Your task to perform on an android device: Open Google Chrome Image 0: 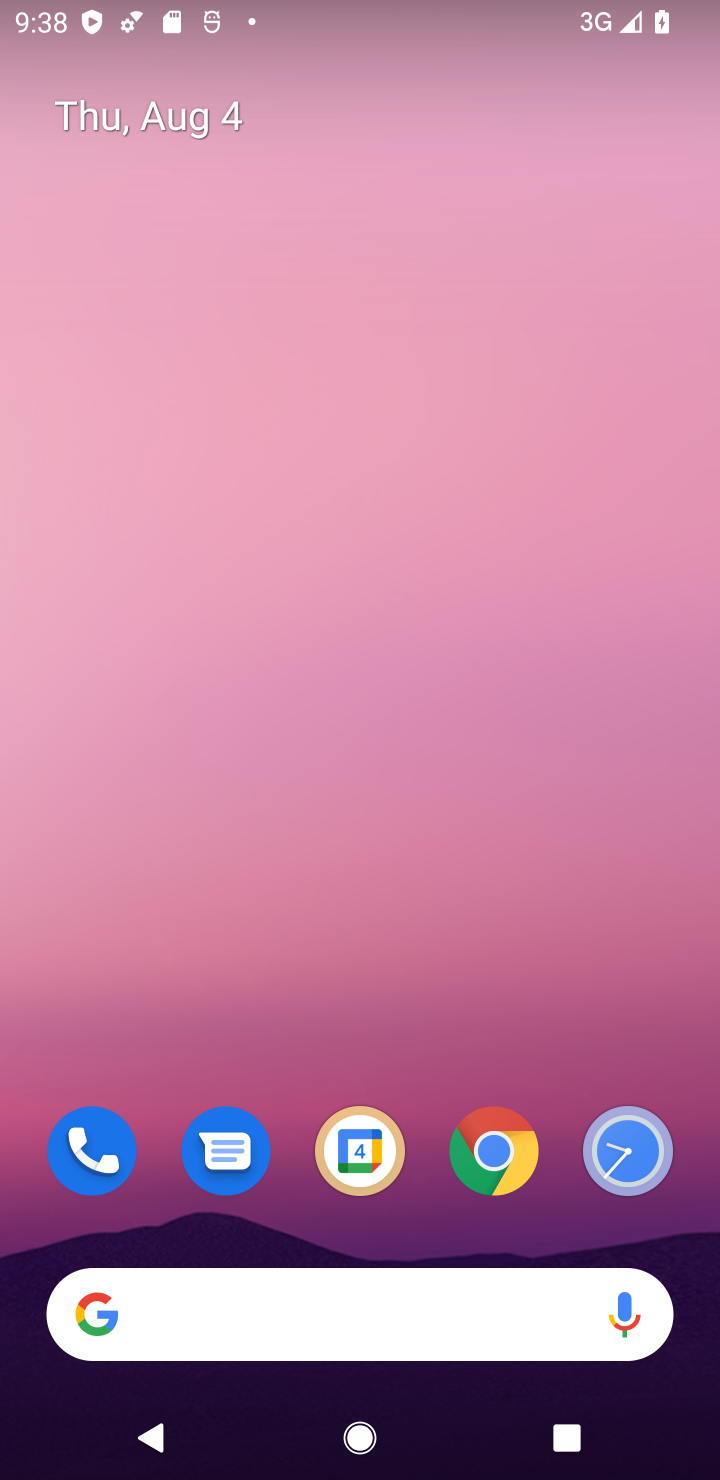
Step 0: click (478, 1176)
Your task to perform on an android device: Open Google Chrome Image 1: 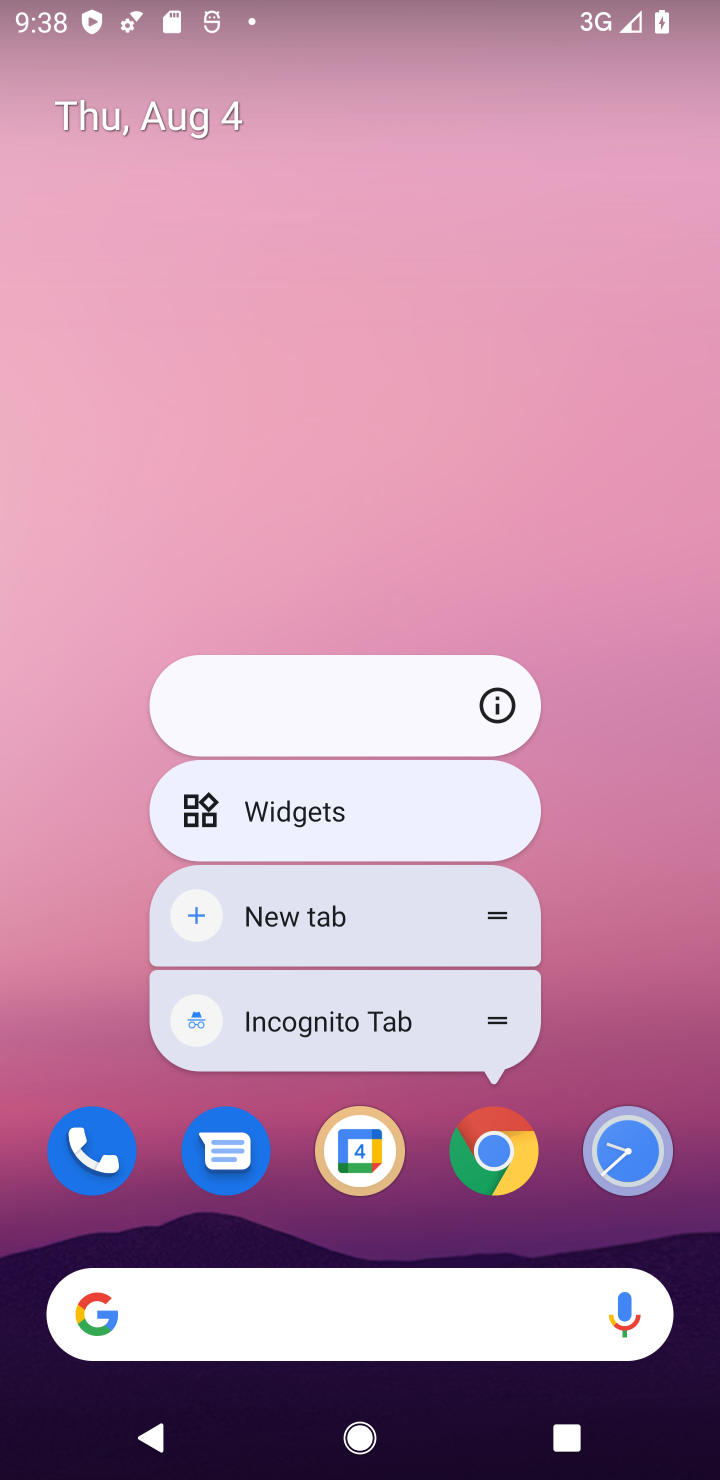
Step 1: click (490, 1167)
Your task to perform on an android device: Open Google Chrome Image 2: 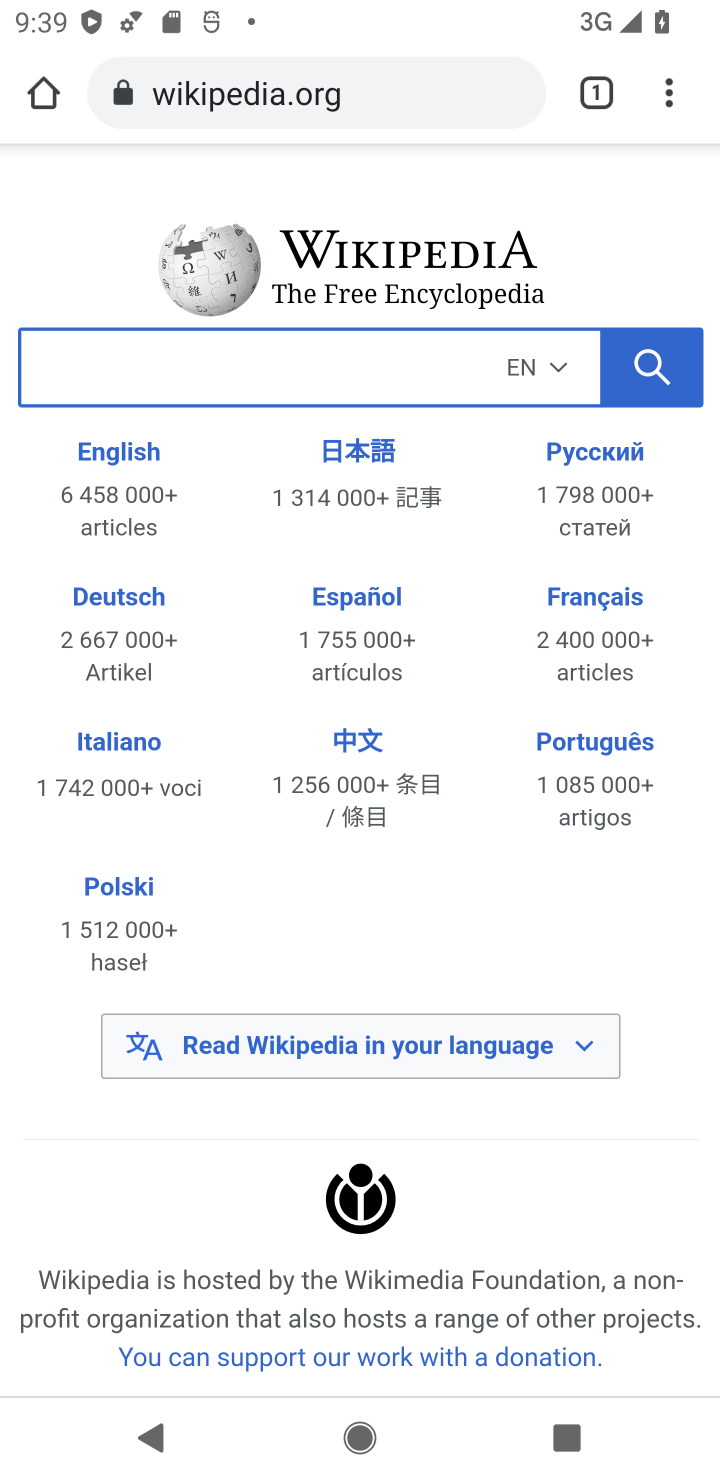
Step 2: task complete